Your task to perform on an android device: change your default location settings in chrome Image 0: 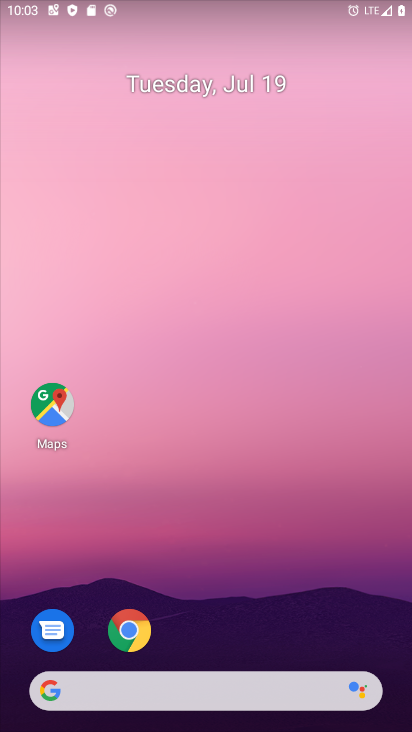
Step 0: drag from (207, 636) to (219, 136)
Your task to perform on an android device: change your default location settings in chrome Image 1: 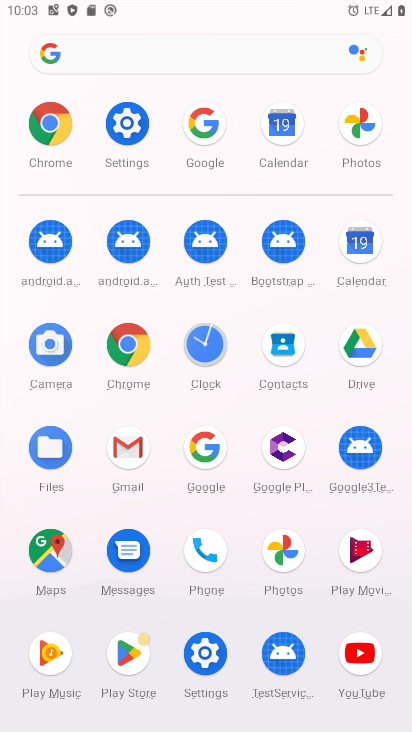
Step 1: click (130, 343)
Your task to perform on an android device: change your default location settings in chrome Image 2: 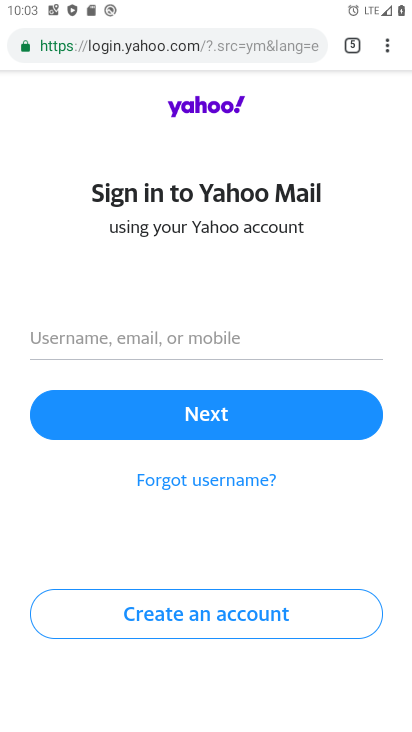
Step 2: click (380, 43)
Your task to perform on an android device: change your default location settings in chrome Image 3: 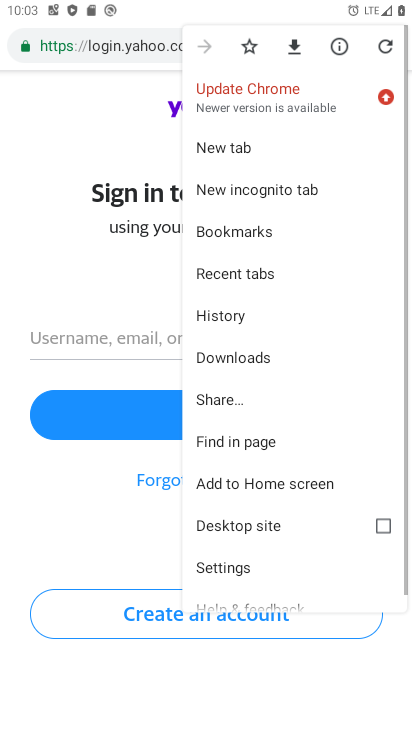
Step 3: click (230, 557)
Your task to perform on an android device: change your default location settings in chrome Image 4: 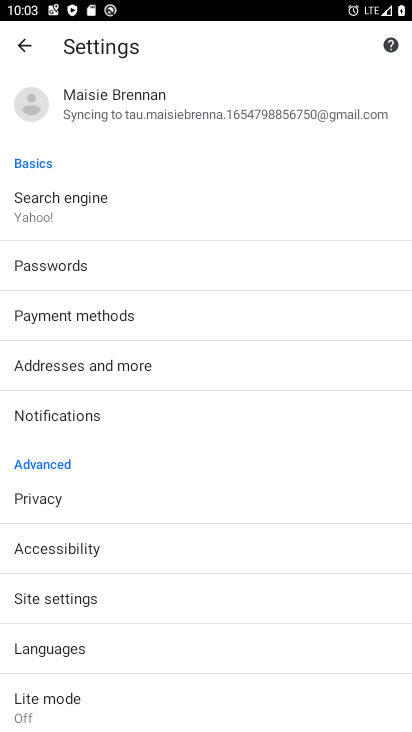
Step 4: click (49, 595)
Your task to perform on an android device: change your default location settings in chrome Image 5: 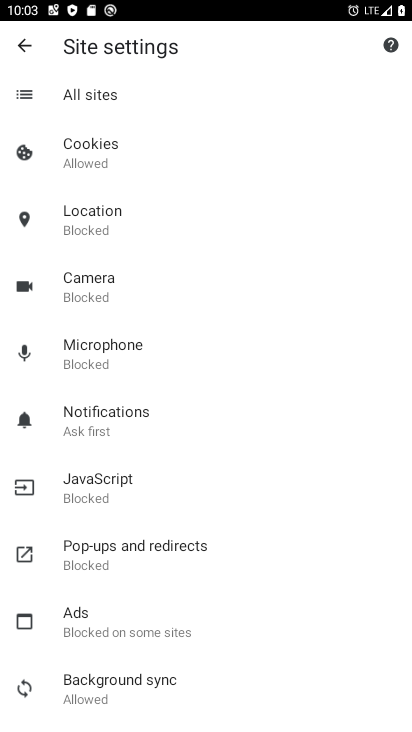
Step 5: drag from (118, 671) to (117, 556)
Your task to perform on an android device: change your default location settings in chrome Image 6: 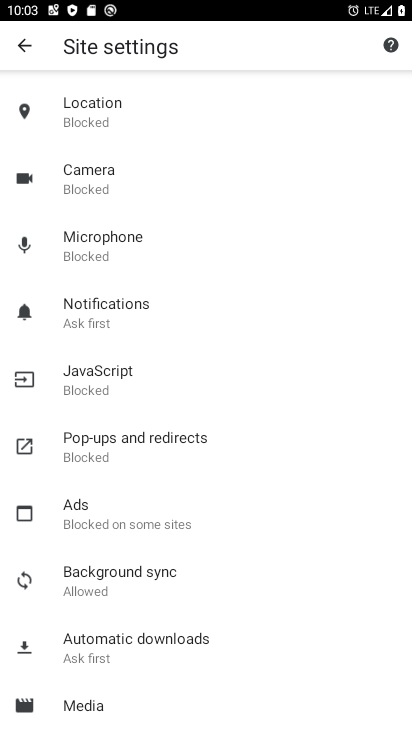
Step 6: click (106, 103)
Your task to perform on an android device: change your default location settings in chrome Image 7: 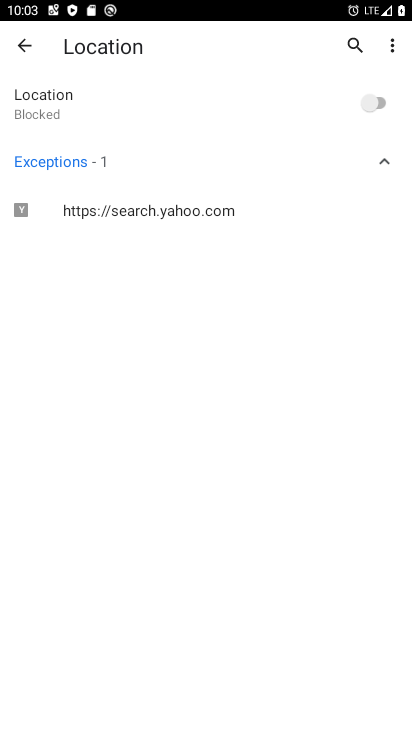
Step 7: click (377, 100)
Your task to perform on an android device: change your default location settings in chrome Image 8: 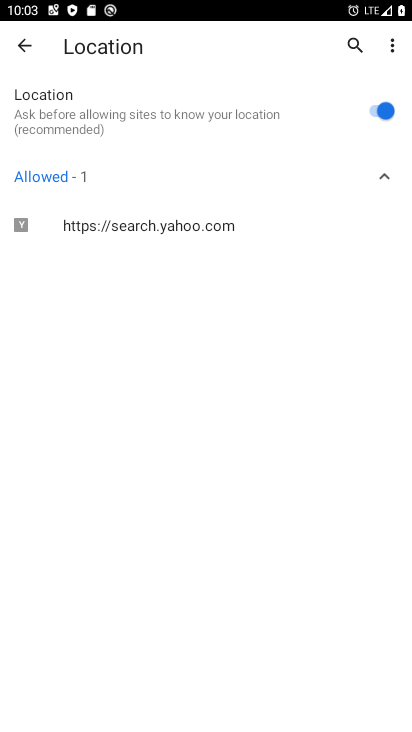
Step 8: task complete